Your task to perform on an android device: Find coffee shops on Maps Image 0: 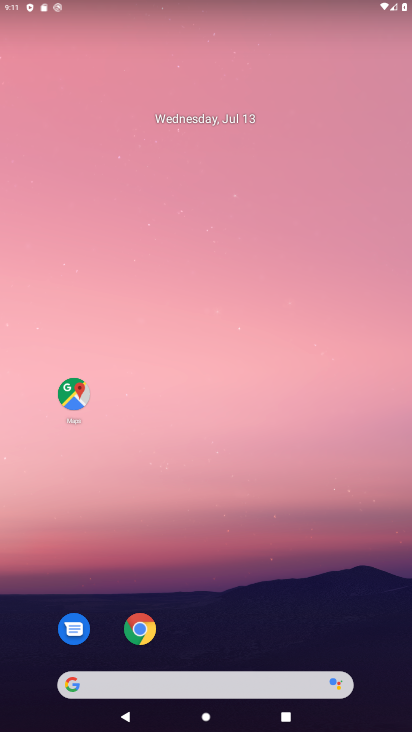
Step 0: click (79, 386)
Your task to perform on an android device: Find coffee shops on Maps Image 1: 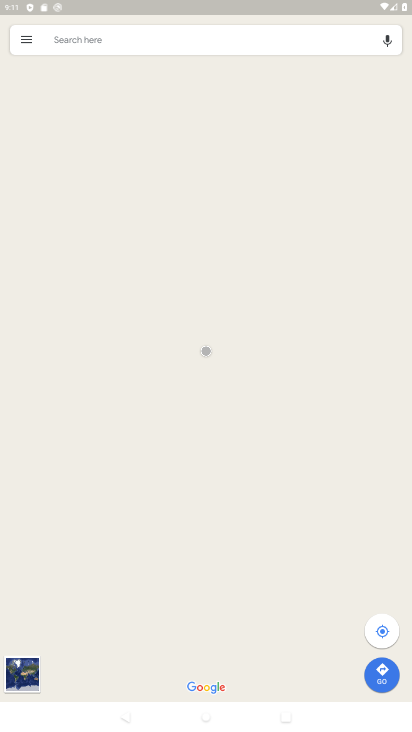
Step 1: click (184, 39)
Your task to perform on an android device: Find coffee shops on Maps Image 2: 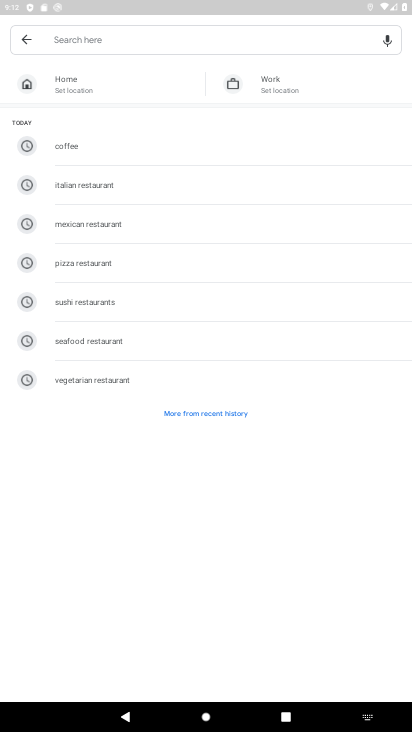
Step 2: click (135, 145)
Your task to perform on an android device: Find coffee shops on Maps Image 3: 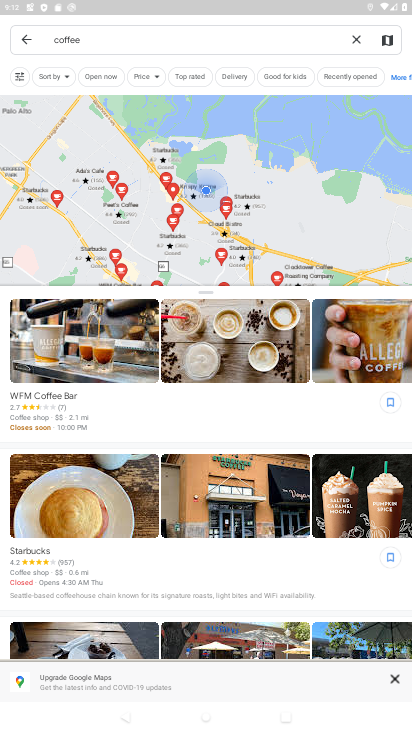
Step 3: task complete